Your task to perform on an android device: Go to calendar. Show me events next week Image 0: 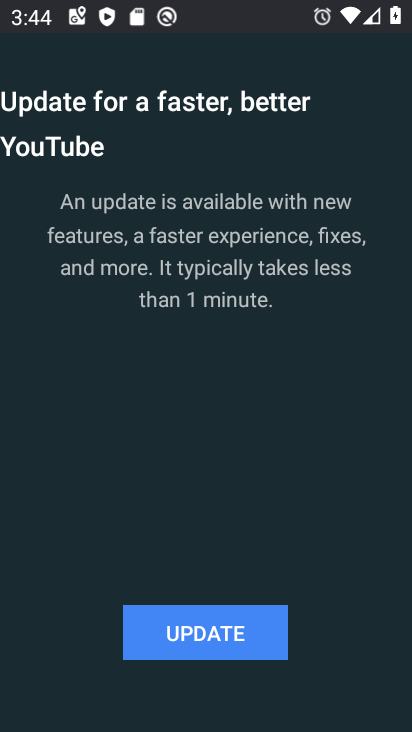
Step 0: press back button
Your task to perform on an android device: Go to calendar. Show me events next week Image 1: 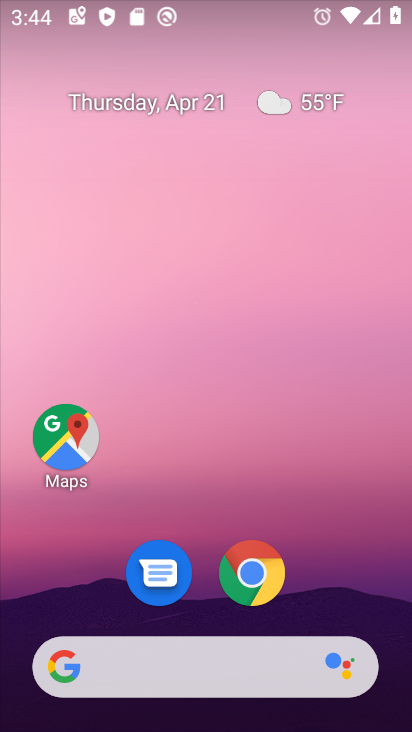
Step 1: drag from (378, 618) to (311, 196)
Your task to perform on an android device: Go to calendar. Show me events next week Image 2: 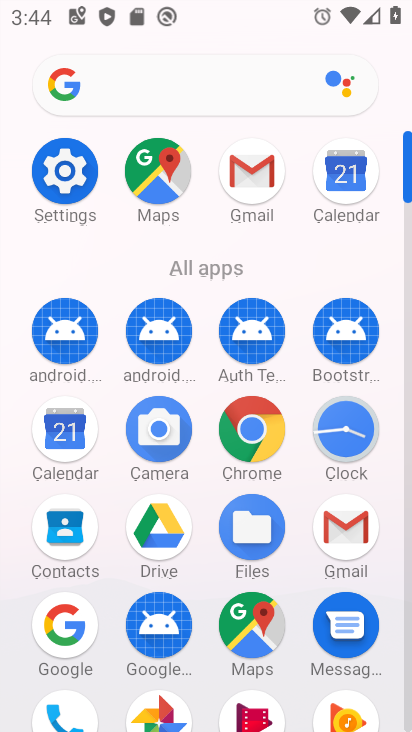
Step 2: click (408, 687)
Your task to perform on an android device: Go to calendar. Show me events next week Image 3: 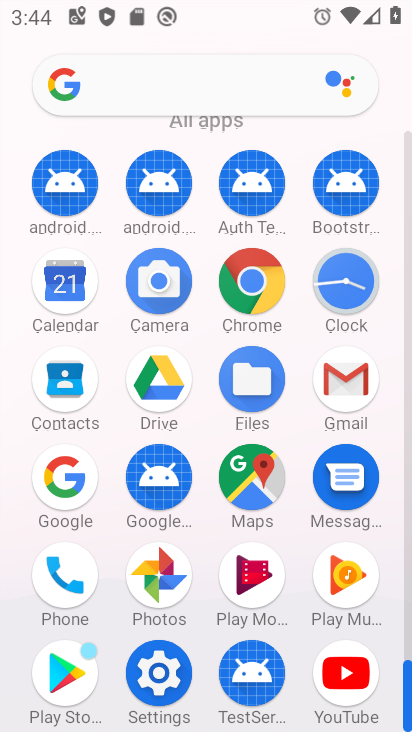
Step 3: click (64, 278)
Your task to perform on an android device: Go to calendar. Show me events next week Image 4: 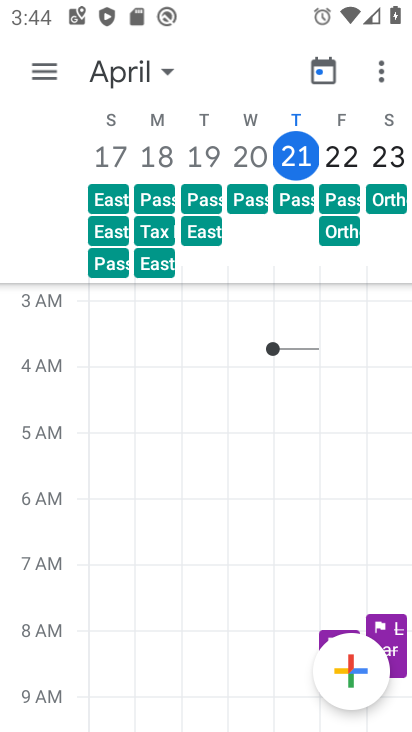
Step 4: click (166, 74)
Your task to perform on an android device: Go to calendar. Show me events next week Image 5: 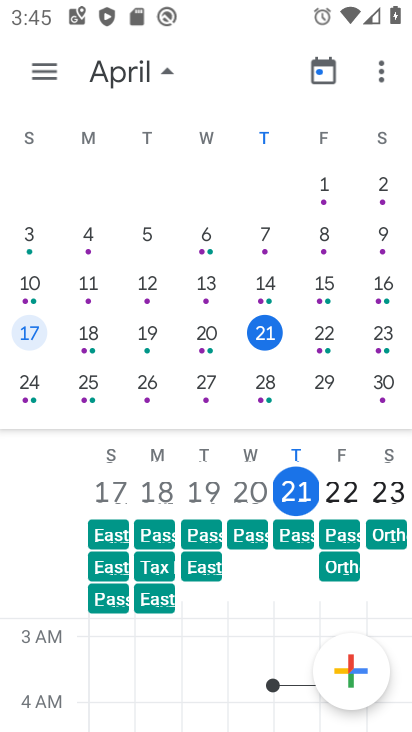
Step 5: click (38, 387)
Your task to perform on an android device: Go to calendar. Show me events next week Image 6: 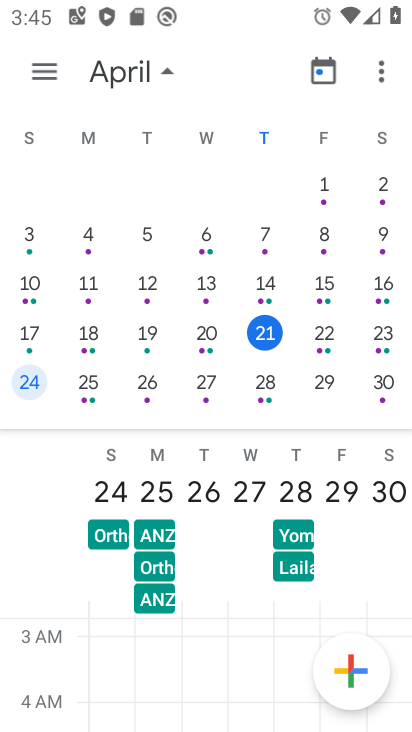
Step 6: task complete